Your task to perform on an android device: turn vacation reply on in the gmail app Image 0: 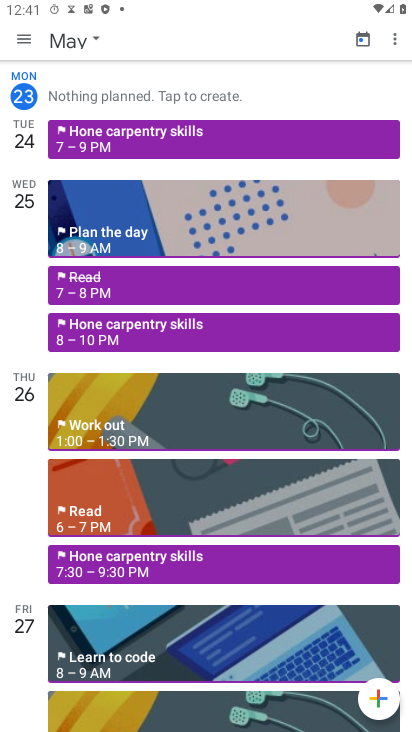
Step 0: press home button
Your task to perform on an android device: turn vacation reply on in the gmail app Image 1: 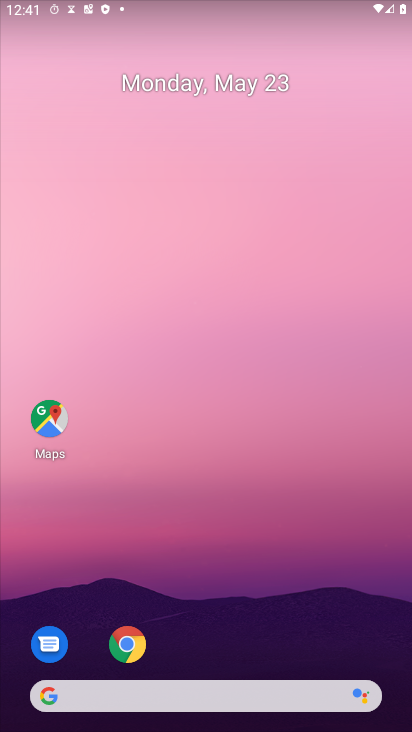
Step 1: drag from (219, 630) to (283, 117)
Your task to perform on an android device: turn vacation reply on in the gmail app Image 2: 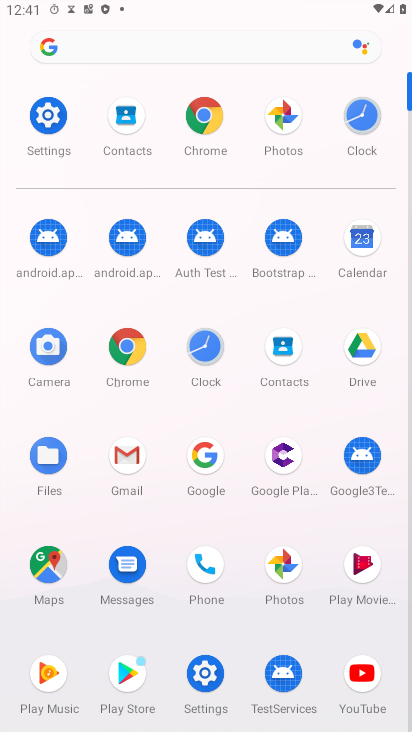
Step 2: click (125, 452)
Your task to perform on an android device: turn vacation reply on in the gmail app Image 3: 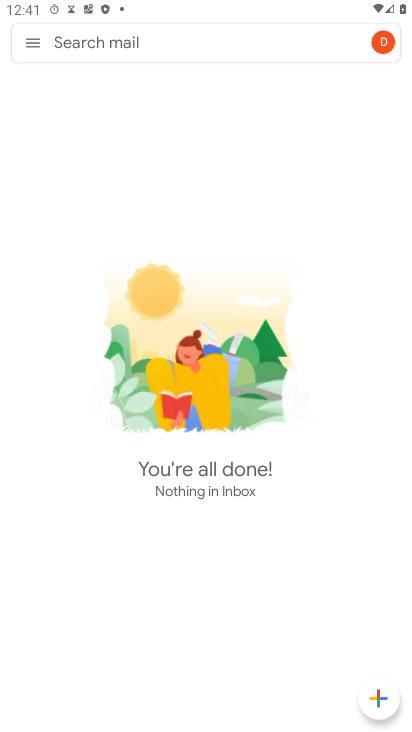
Step 3: click (30, 40)
Your task to perform on an android device: turn vacation reply on in the gmail app Image 4: 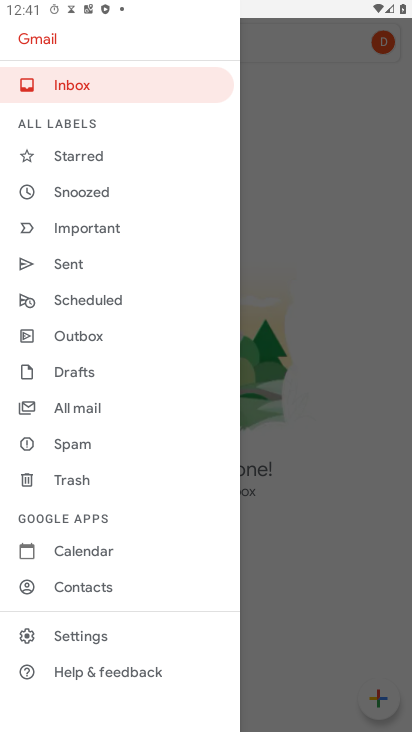
Step 4: click (108, 632)
Your task to perform on an android device: turn vacation reply on in the gmail app Image 5: 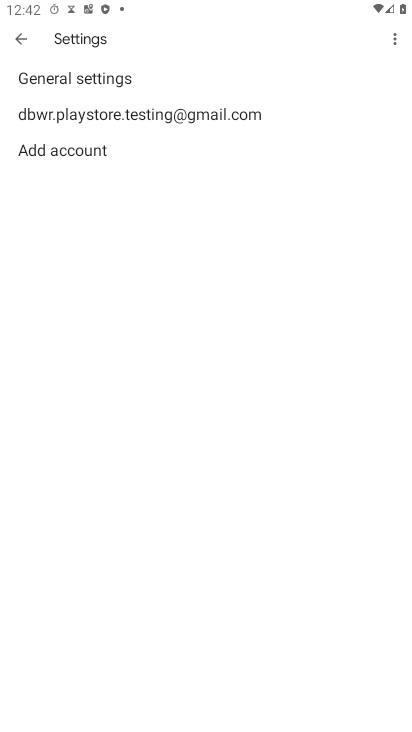
Step 5: click (168, 111)
Your task to perform on an android device: turn vacation reply on in the gmail app Image 6: 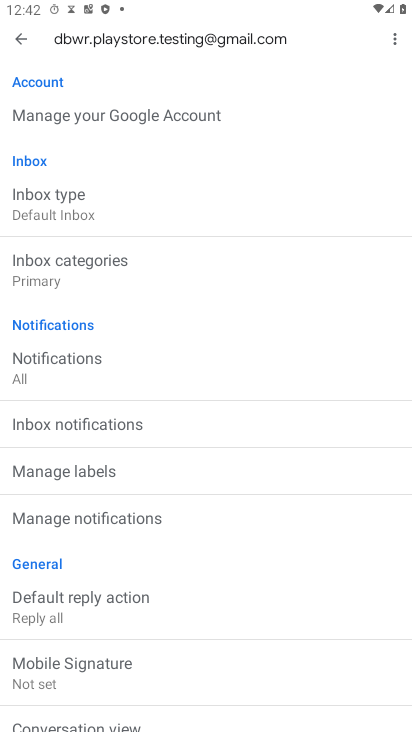
Step 6: drag from (222, 666) to (241, 244)
Your task to perform on an android device: turn vacation reply on in the gmail app Image 7: 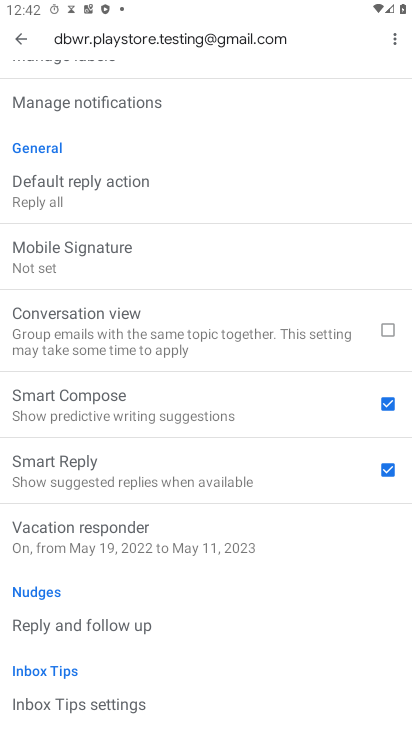
Step 7: click (180, 534)
Your task to perform on an android device: turn vacation reply on in the gmail app Image 8: 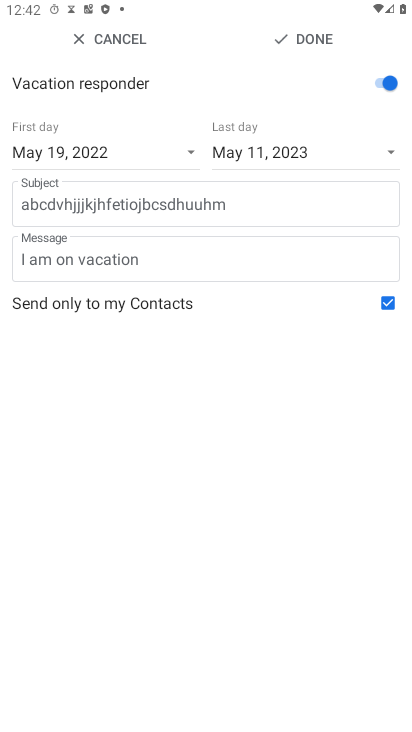
Step 8: click (321, 34)
Your task to perform on an android device: turn vacation reply on in the gmail app Image 9: 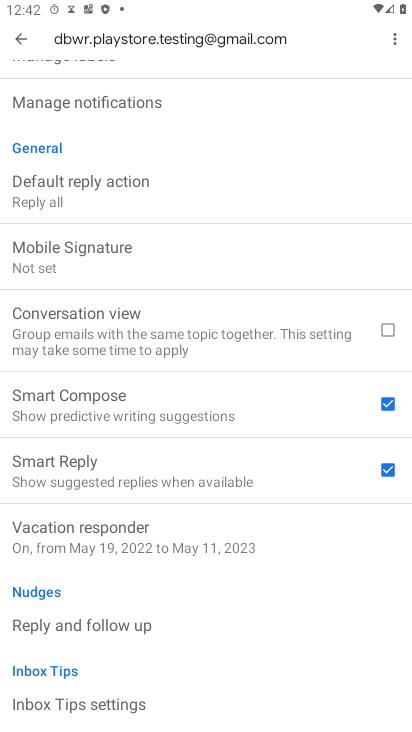
Step 9: task complete